Your task to perform on an android device: delete the emails in spam in the gmail app Image 0: 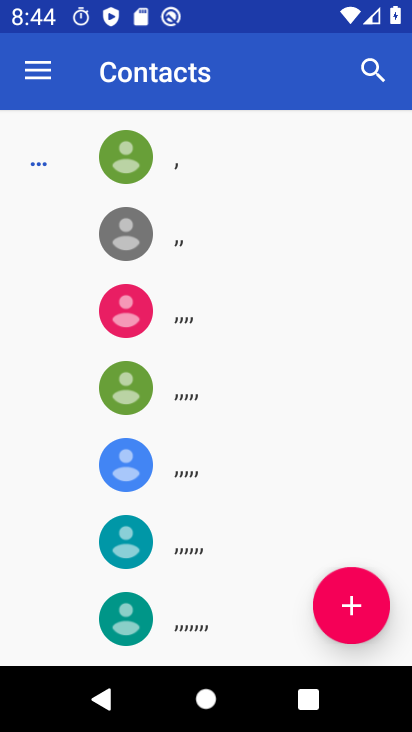
Step 0: press home button
Your task to perform on an android device: delete the emails in spam in the gmail app Image 1: 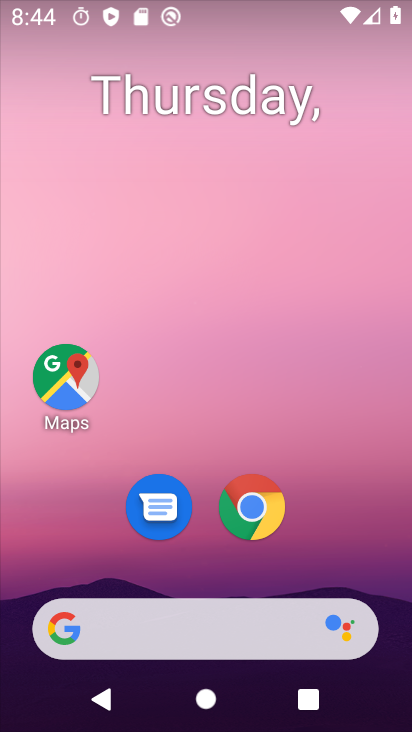
Step 1: drag from (193, 547) to (237, 2)
Your task to perform on an android device: delete the emails in spam in the gmail app Image 2: 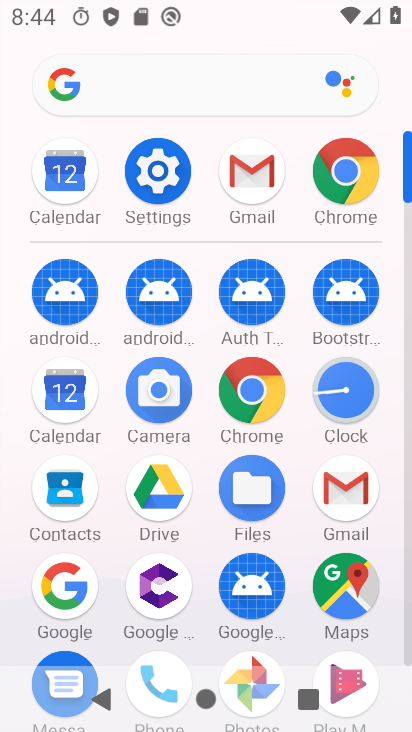
Step 2: click (369, 492)
Your task to perform on an android device: delete the emails in spam in the gmail app Image 3: 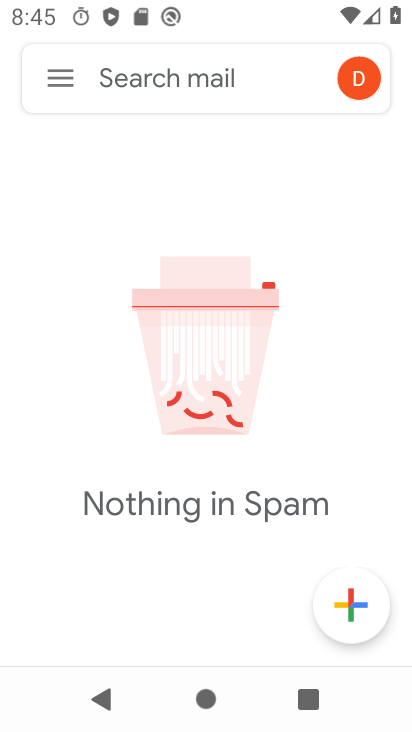
Step 3: click (58, 85)
Your task to perform on an android device: delete the emails in spam in the gmail app Image 4: 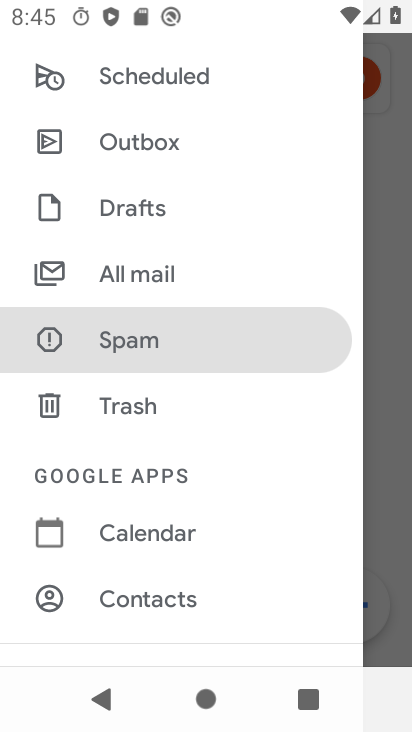
Step 4: click (144, 335)
Your task to perform on an android device: delete the emails in spam in the gmail app Image 5: 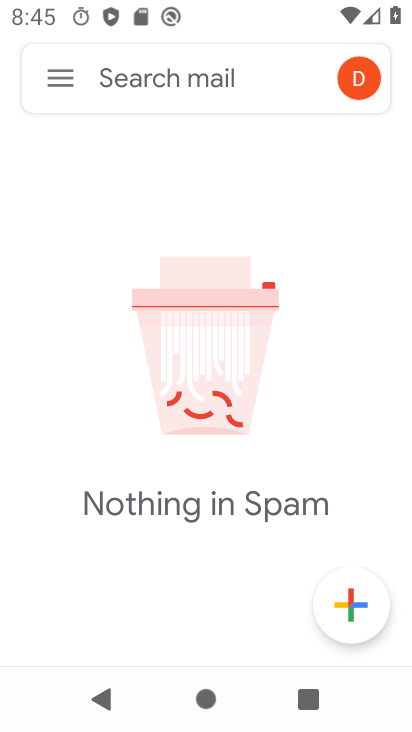
Step 5: task complete